Your task to perform on an android device: Open notification settings Image 0: 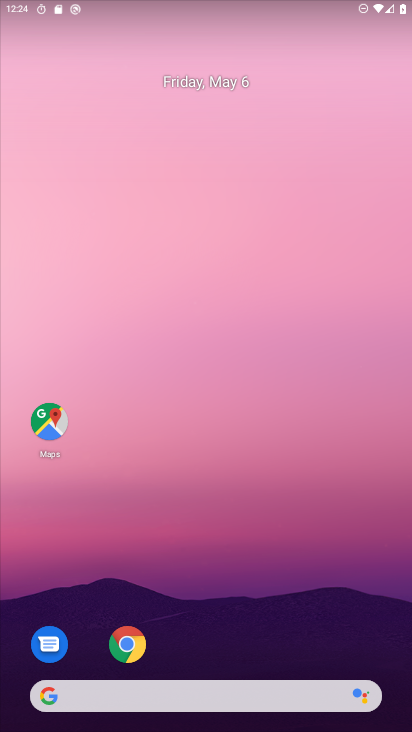
Step 0: drag from (364, 623) to (364, 119)
Your task to perform on an android device: Open notification settings Image 1: 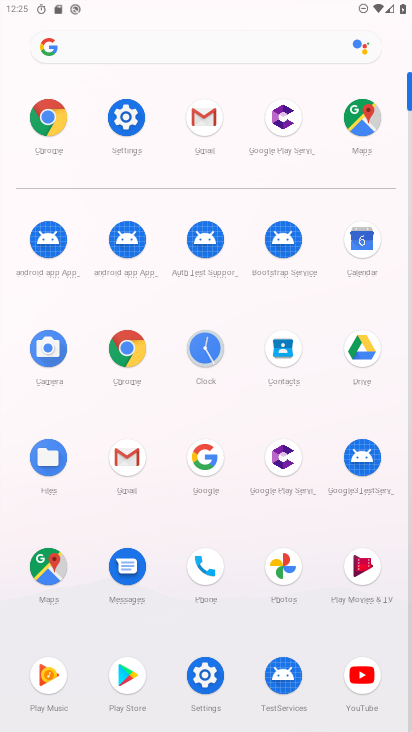
Step 1: click (199, 675)
Your task to perform on an android device: Open notification settings Image 2: 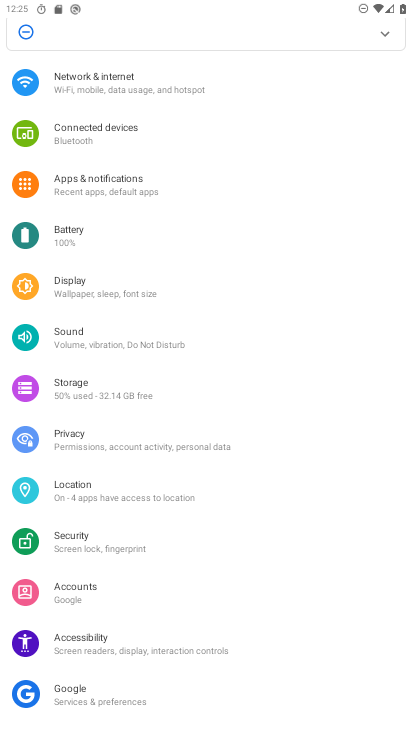
Step 2: click (113, 181)
Your task to perform on an android device: Open notification settings Image 3: 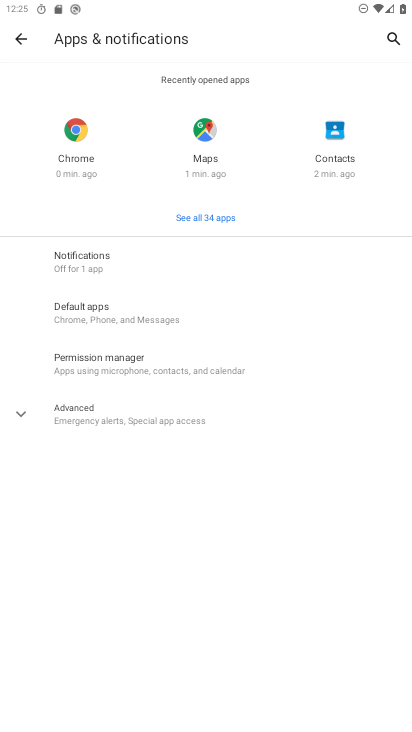
Step 3: click (94, 270)
Your task to perform on an android device: Open notification settings Image 4: 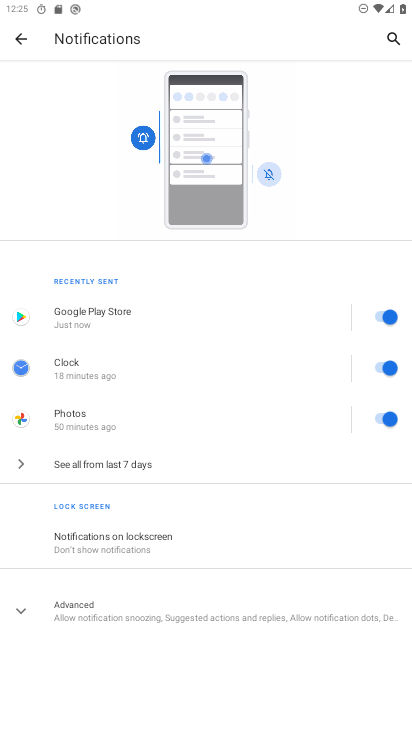
Step 4: task complete